Your task to perform on an android device: install app "Reddit" Image 0: 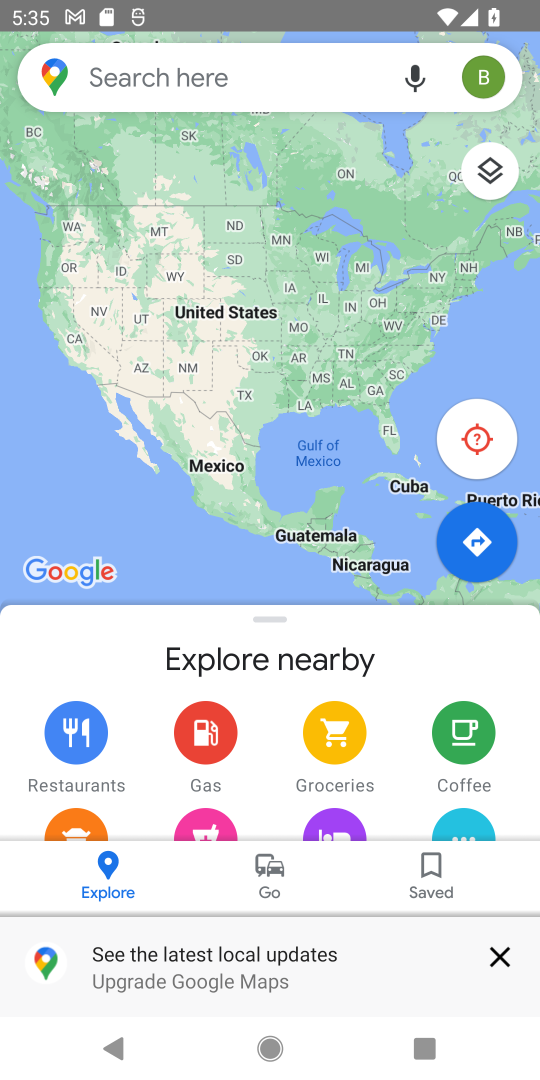
Step 0: press back button
Your task to perform on an android device: install app "Reddit" Image 1: 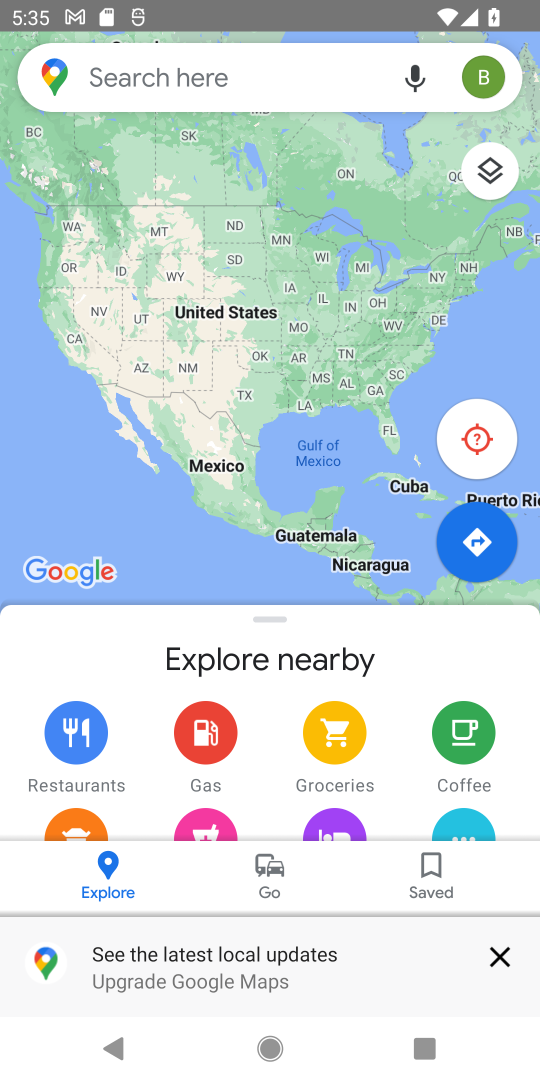
Step 1: press back button
Your task to perform on an android device: install app "Reddit" Image 2: 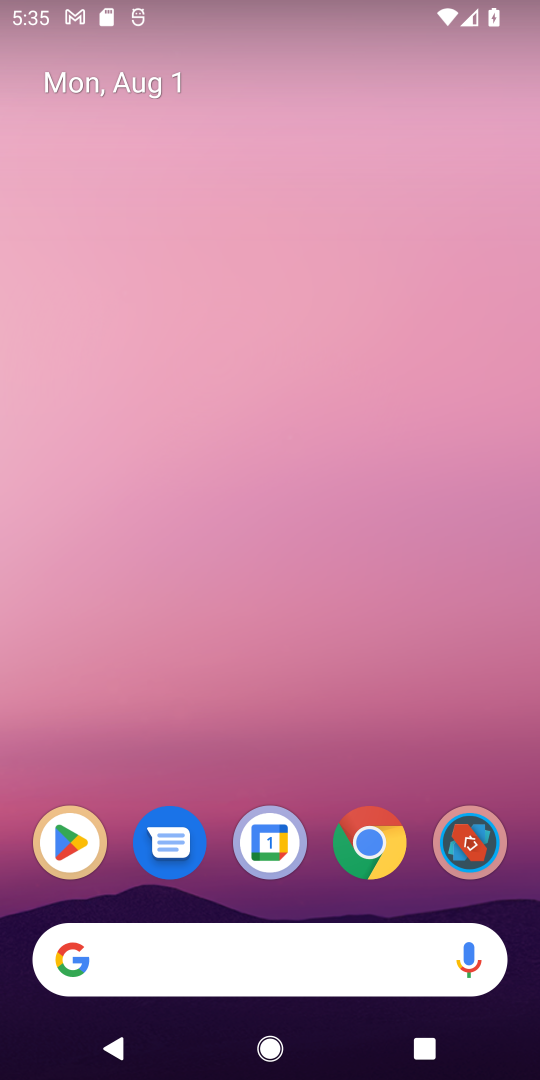
Step 2: drag from (129, 644) to (90, 432)
Your task to perform on an android device: install app "Reddit" Image 3: 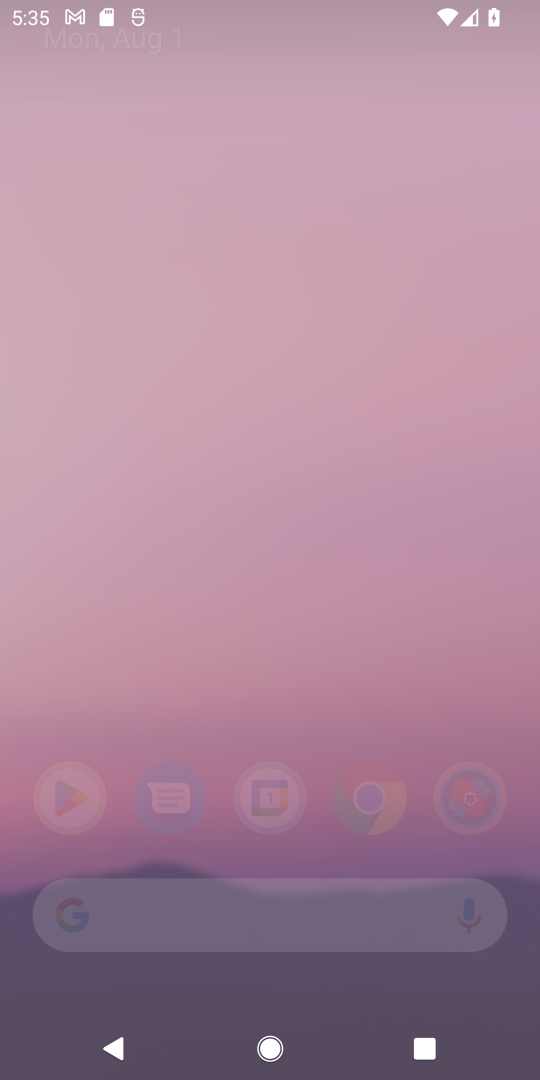
Step 3: drag from (95, 606) to (21, 61)
Your task to perform on an android device: install app "Reddit" Image 4: 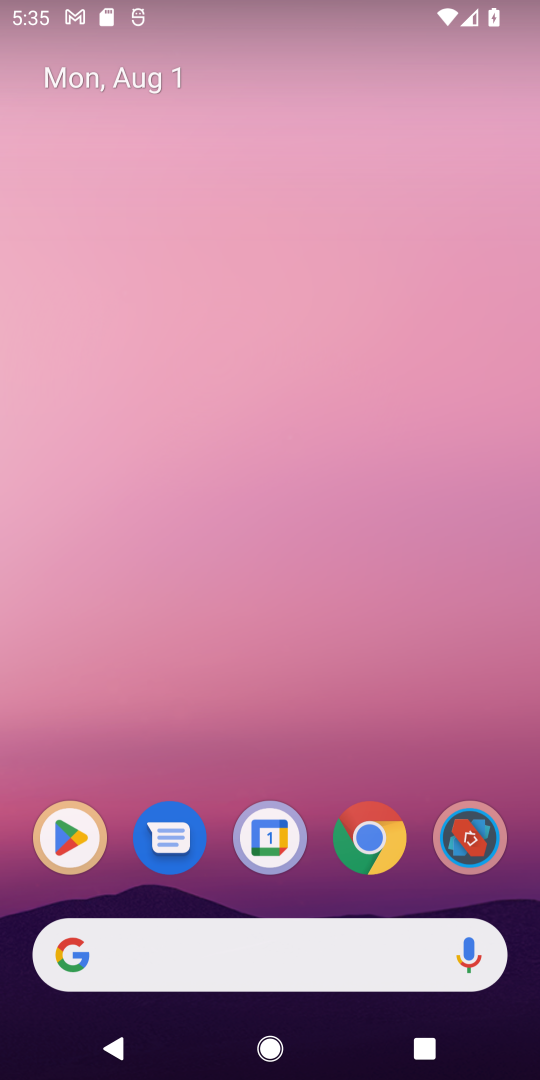
Step 4: drag from (295, 461) to (245, 132)
Your task to perform on an android device: install app "Reddit" Image 5: 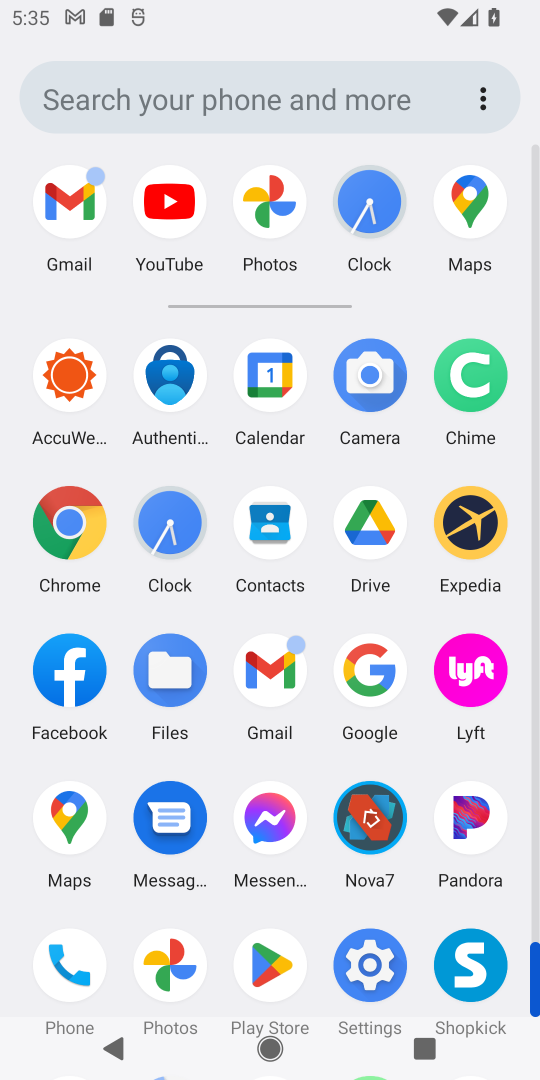
Step 5: drag from (266, 862) to (193, 66)
Your task to perform on an android device: install app "Reddit" Image 6: 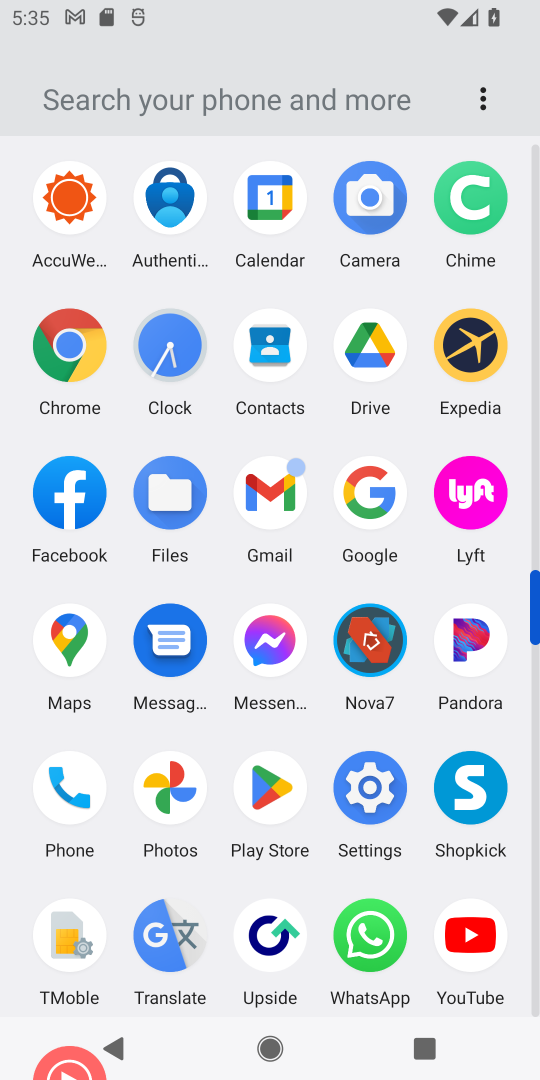
Step 6: drag from (327, 804) to (307, 360)
Your task to perform on an android device: install app "Reddit" Image 7: 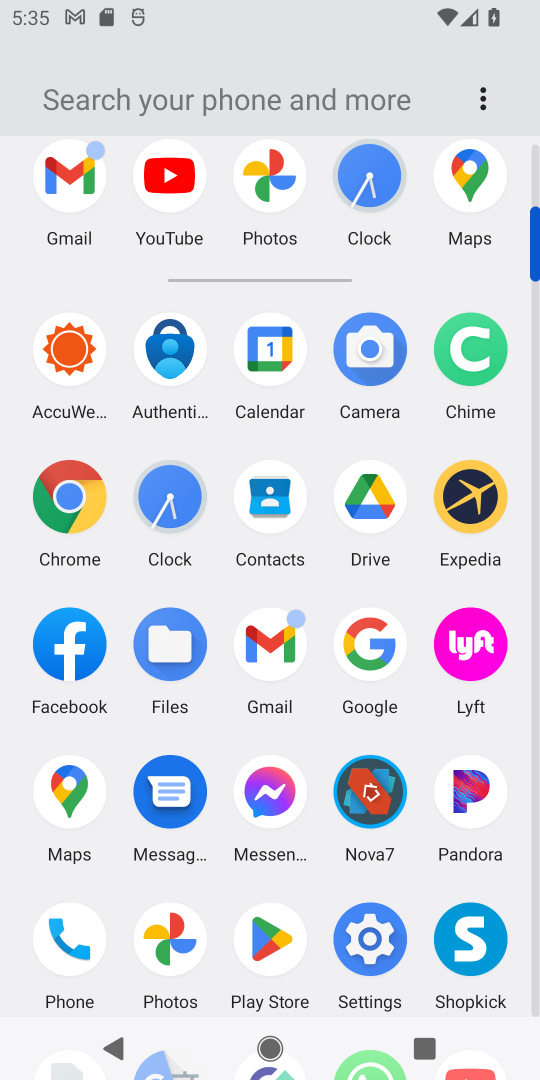
Step 7: drag from (359, 858) to (397, 423)
Your task to perform on an android device: install app "Reddit" Image 8: 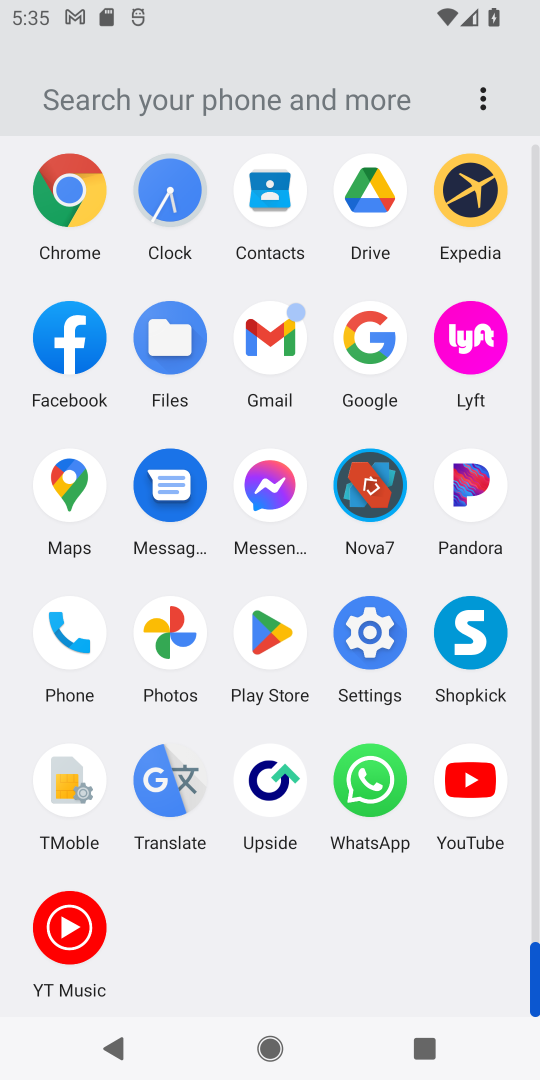
Step 8: click (283, 623)
Your task to perform on an android device: install app "Reddit" Image 9: 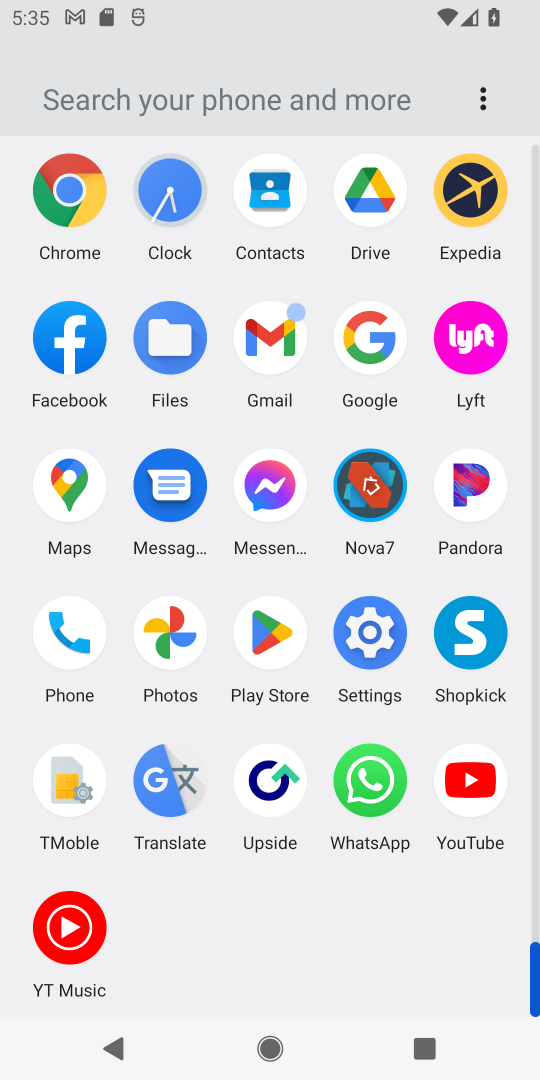
Step 9: click (283, 623)
Your task to perform on an android device: install app "Reddit" Image 10: 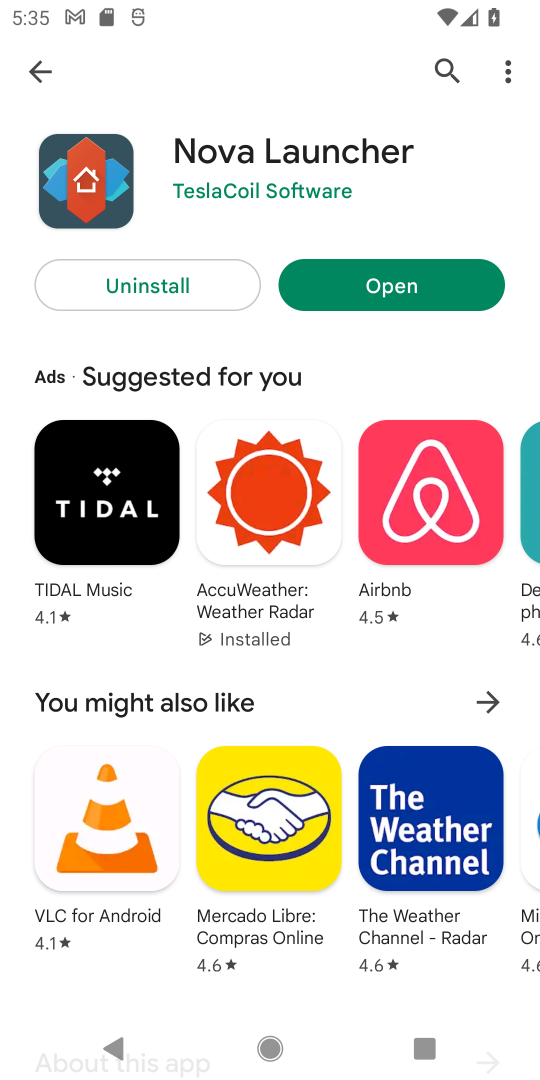
Step 10: click (13, 65)
Your task to perform on an android device: install app "Reddit" Image 11: 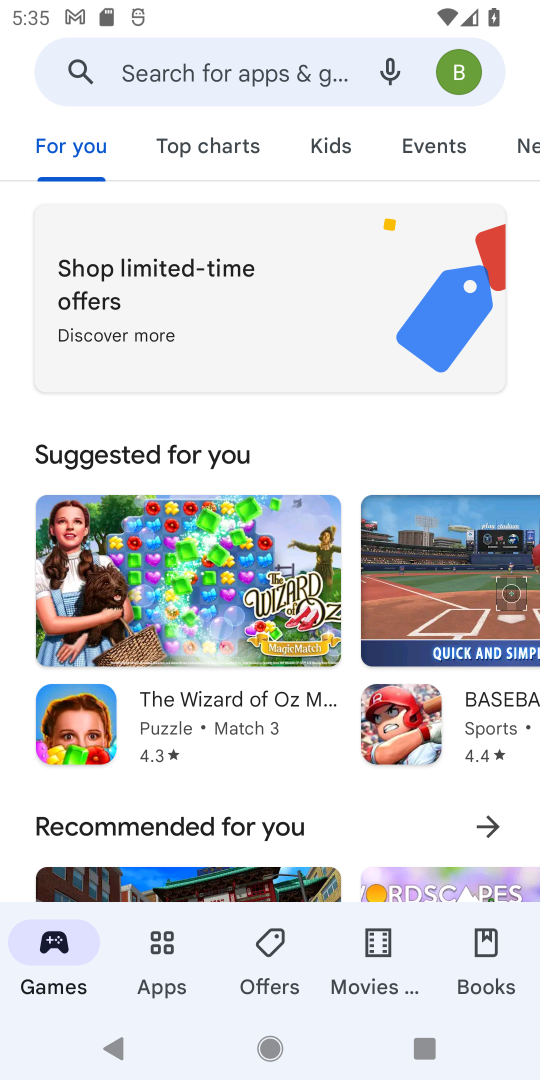
Step 11: click (128, 57)
Your task to perform on an android device: install app "Reddit" Image 12: 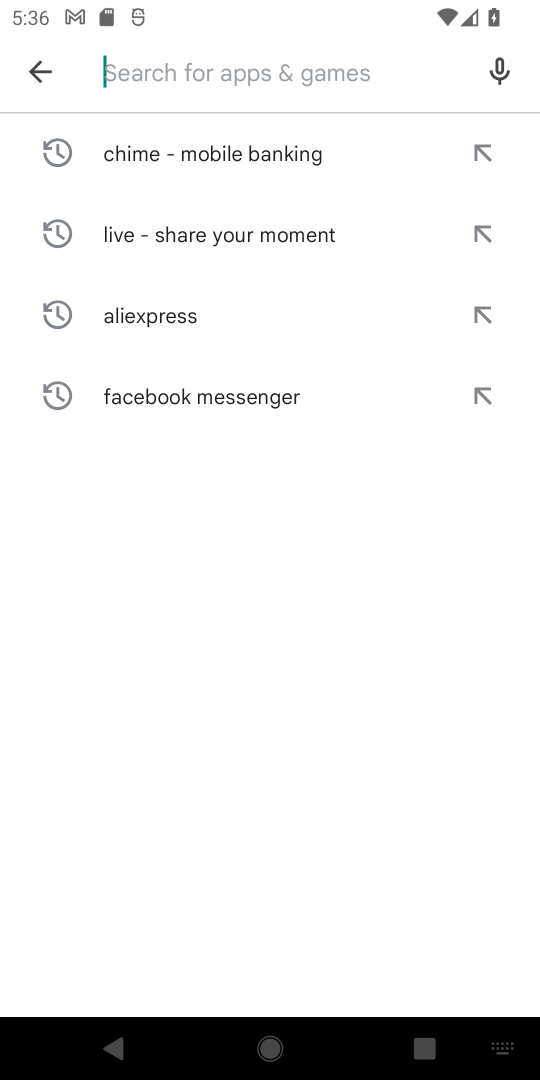
Step 12: type "Reddit"
Your task to perform on an android device: install app "Reddit" Image 13: 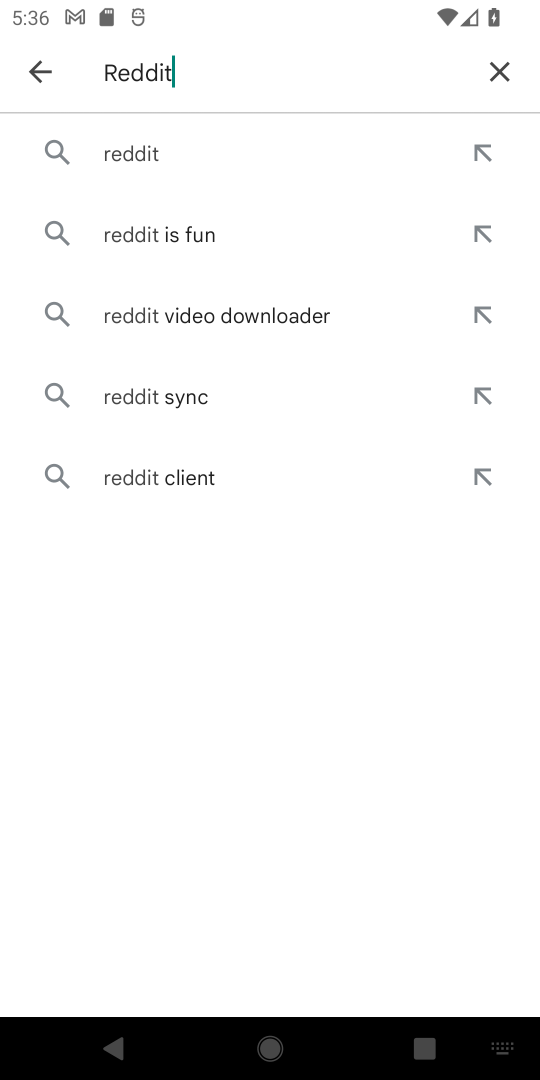
Step 13: click (139, 151)
Your task to perform on an android device: install app "Reddit" Image 14: 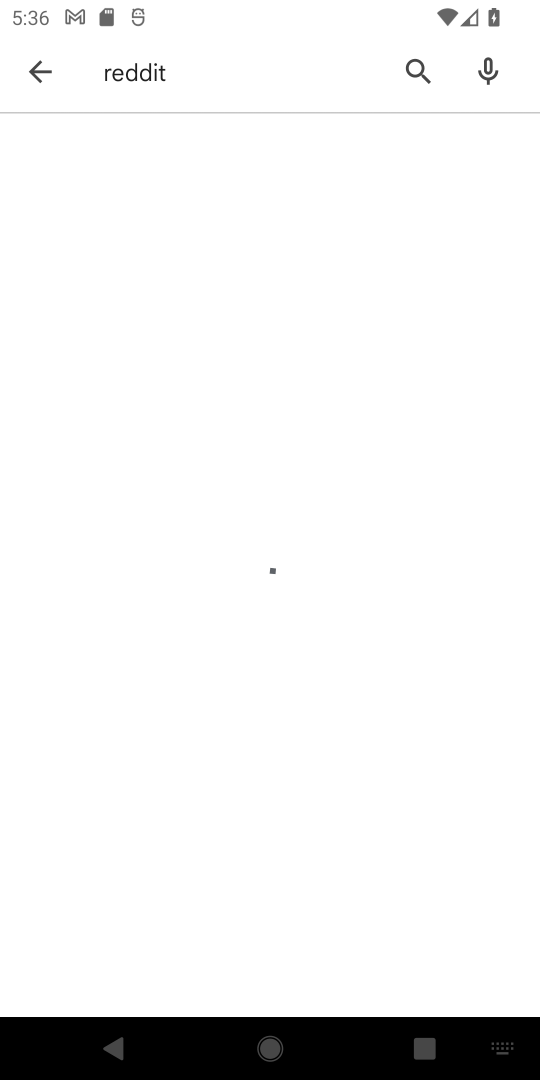
Step 14: click (152, 158)
Your task to perform on an android device: install app "Reddit" Image 15: 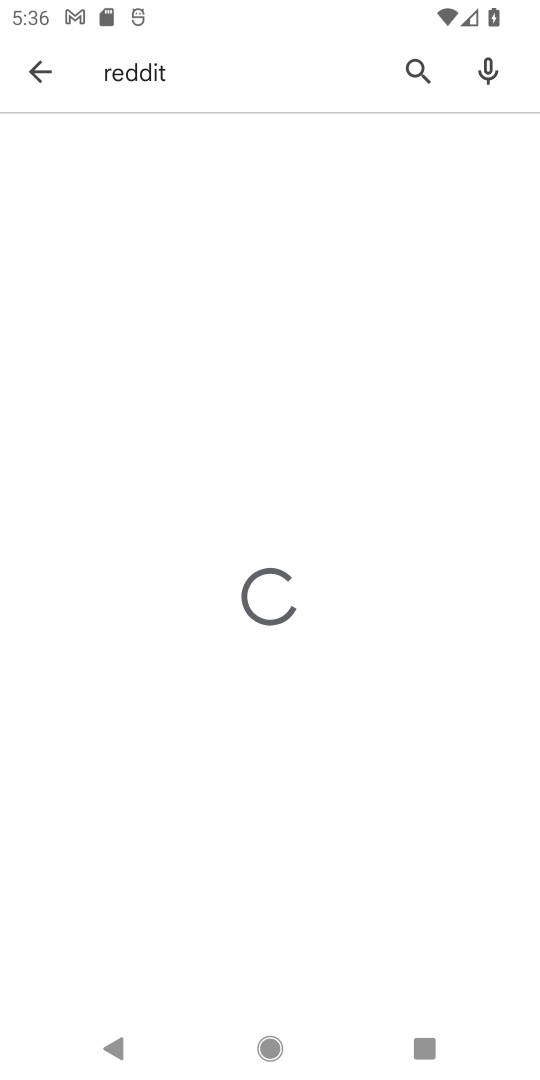
Step 15: click (158, 156)
Your task to perform on an android device: install app "Reddit" Image 16: 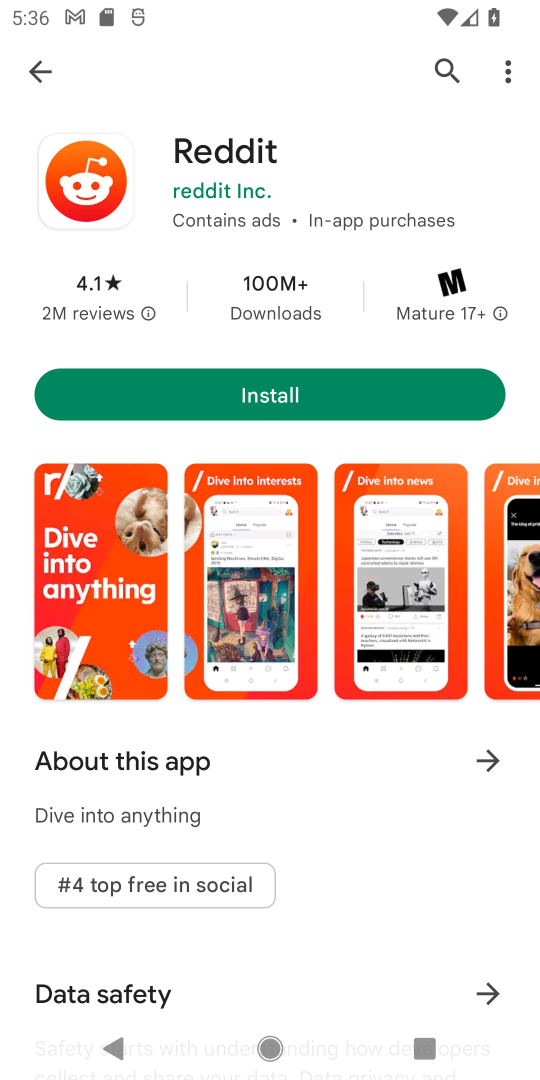
Step 16: click (309, 405)
Your task to perform on an android device: install app "Reddit" Image 17: 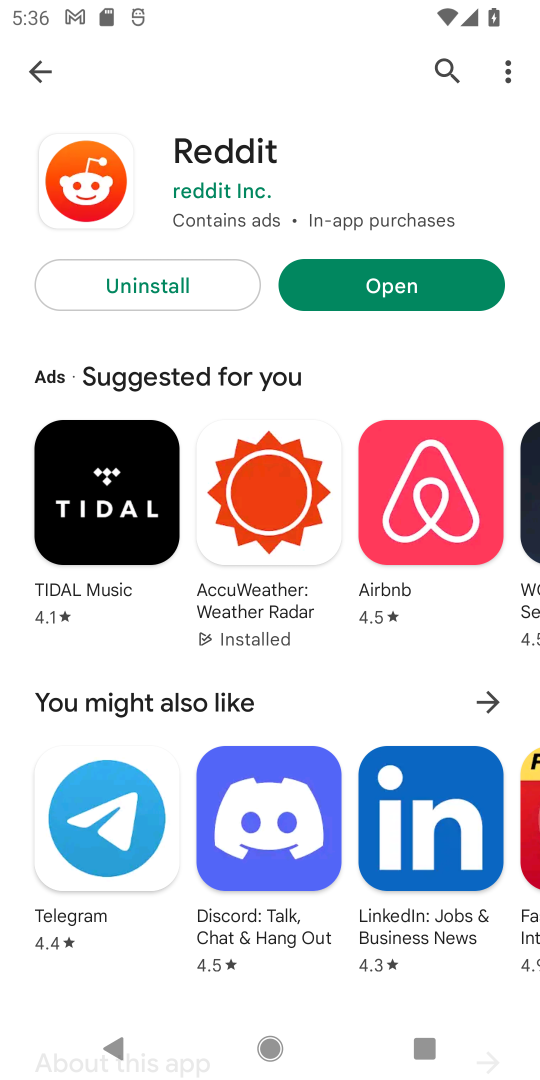
Step 17: click (425, 296)
Your task to perform on an android device: install app "Reddit" Image 18: 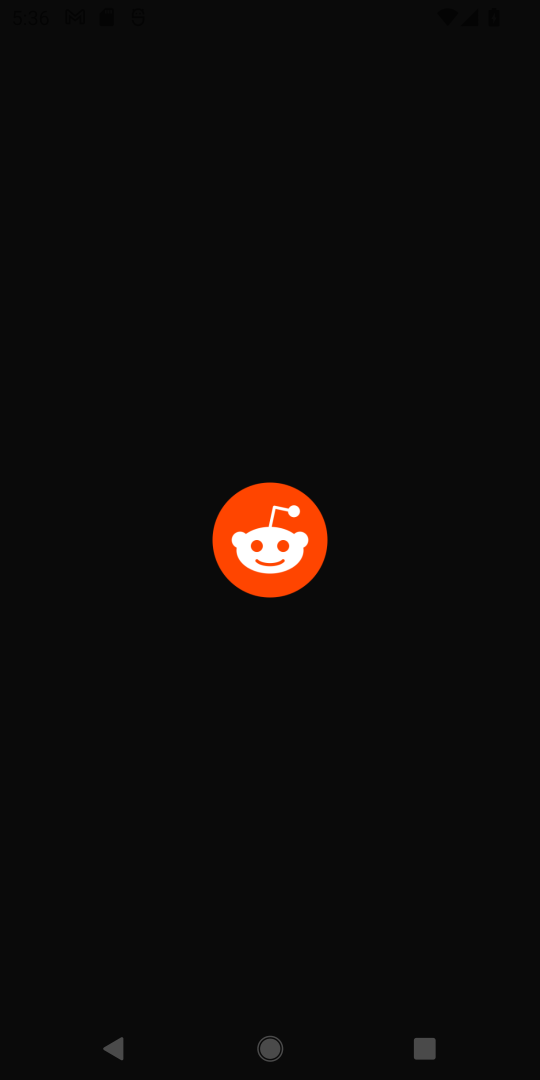
Step 18: drag from (293, 750) to (230, 349)
Your task to perform on an android device: install app "Reddit" Image 19: 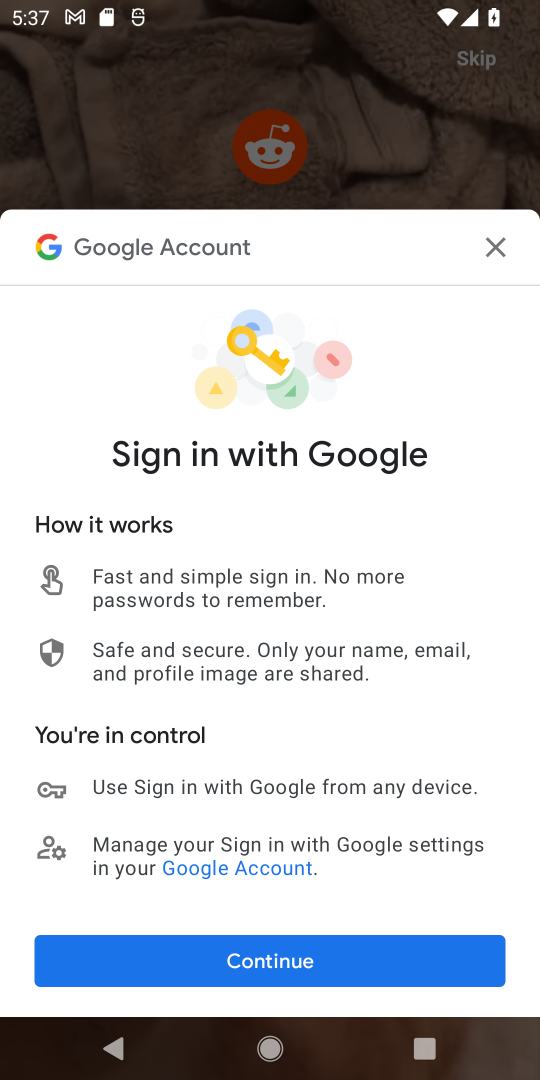
Step 19: click (317, 956)
Your task to perform on an android device: install app "Reddit" Image 20: 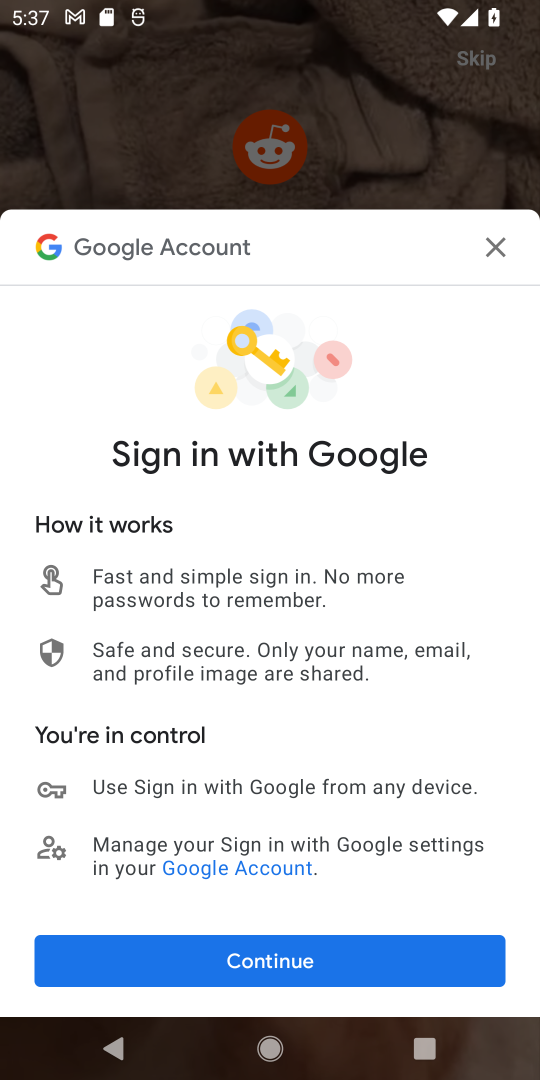
Step 20: click (313, 960)
Your task to perform on an android device: install app "Reddit" Image 21: 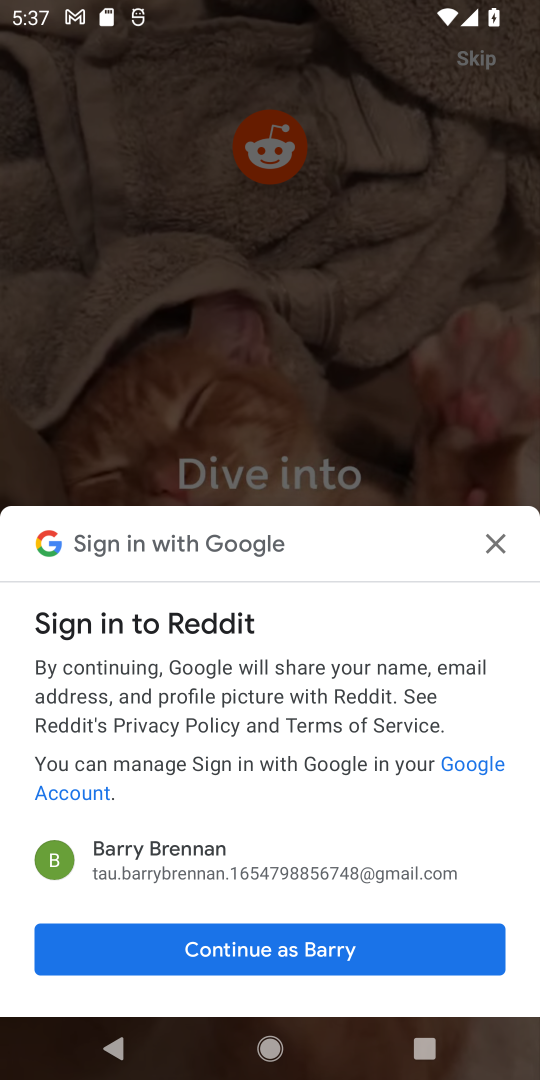
Step 21: click (493, 540)
Your task to perform on an android device: install app "Reddit" Image 22: 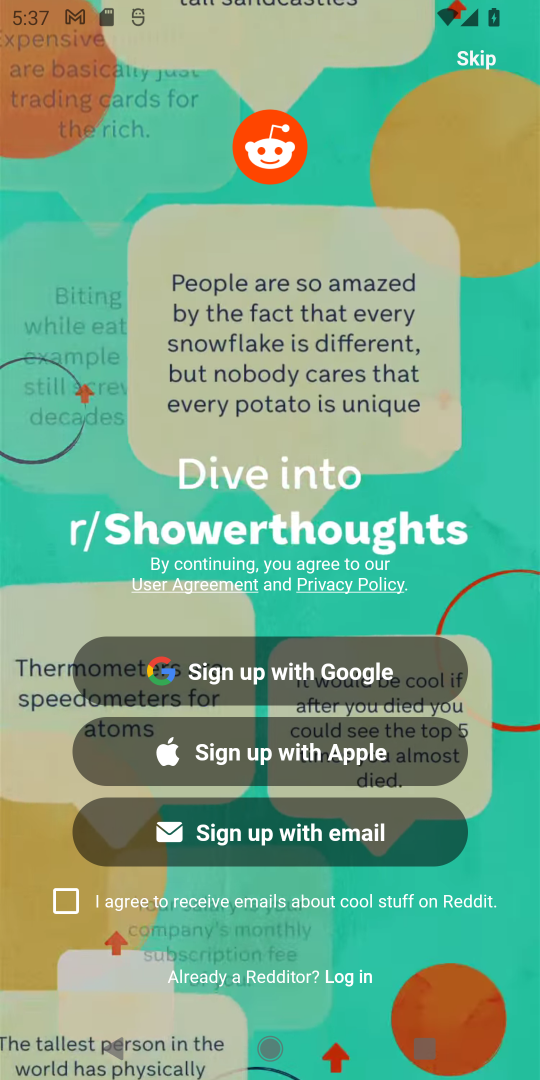
Step 22: task complete